Your task to perform on an android device: open device folders in google photos Image 0: 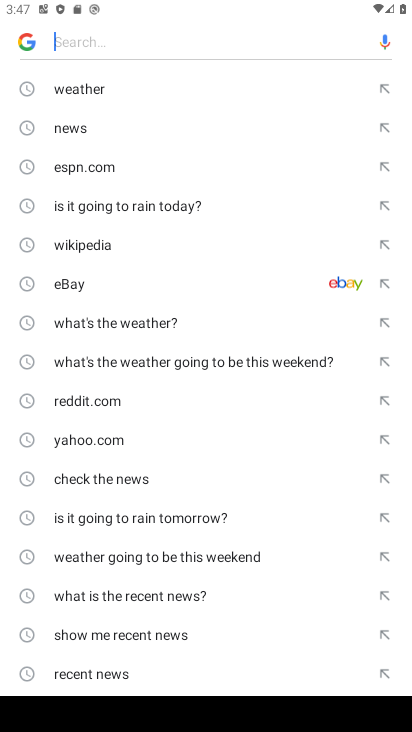
Step 0: press home button
Your task to perform on an android device: open device folders in google photos Image 1: 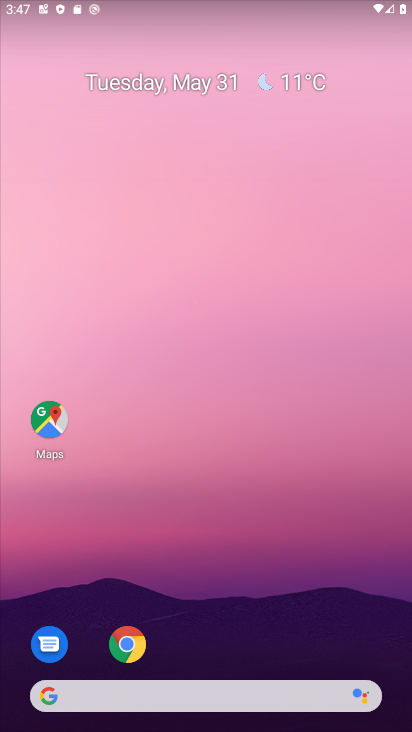
Step 1: drag from (275, 648) to (252, 146)
Your task to perform on an android device: open device folders in google photos Image 2: 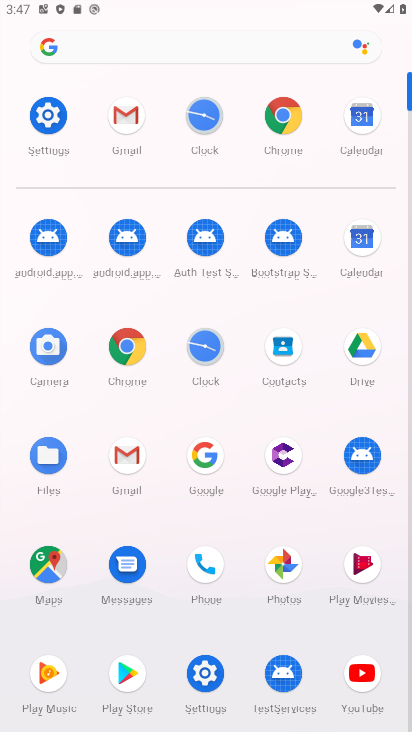
Step 2: click (288, 565)
Your task to perform on an android device: open device folders in google photos Image 3: 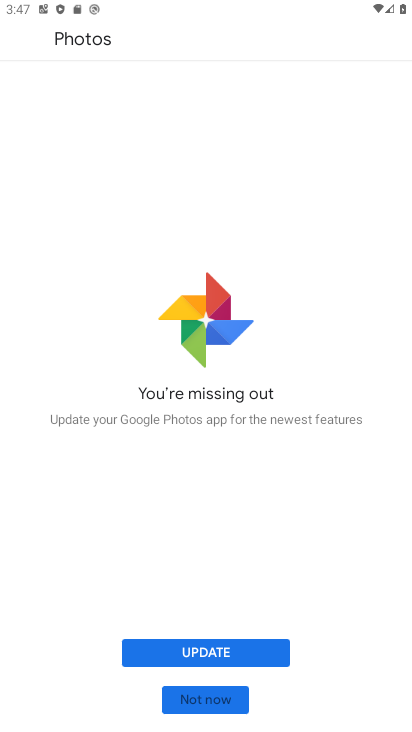
Step 3: click (245, 653)
Your task to perform on an android device: open device folders in google photos Image 4: 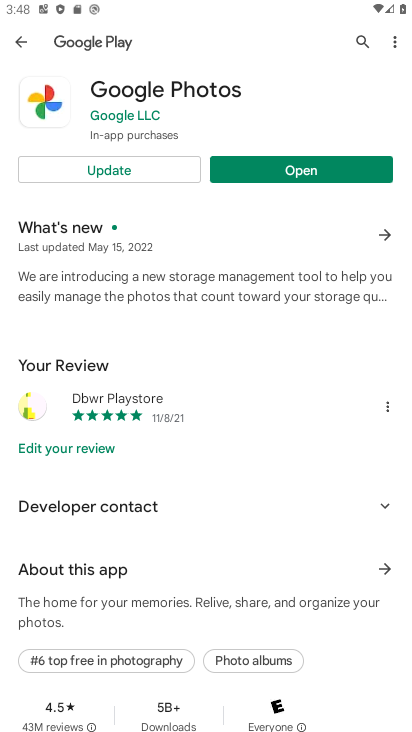
Step 4: click (152, 169)
Your task to perform on an android device: open device folders in google photos Image 5: 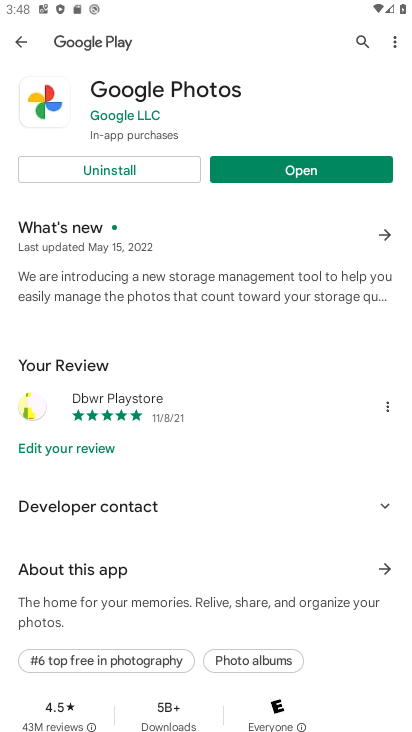
Step 5: click (305, 167)
Your task to perform on an android device: open device folders in google photos Image 6: 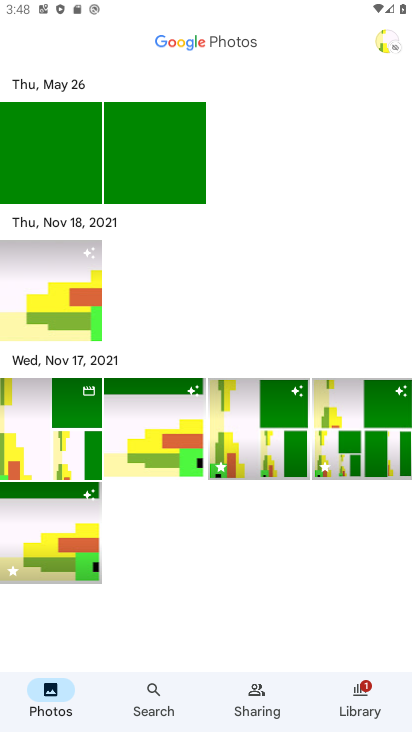
Step 6: click (387, 47)
Your task to perform on an android device: open device folders in google photos Image 7: 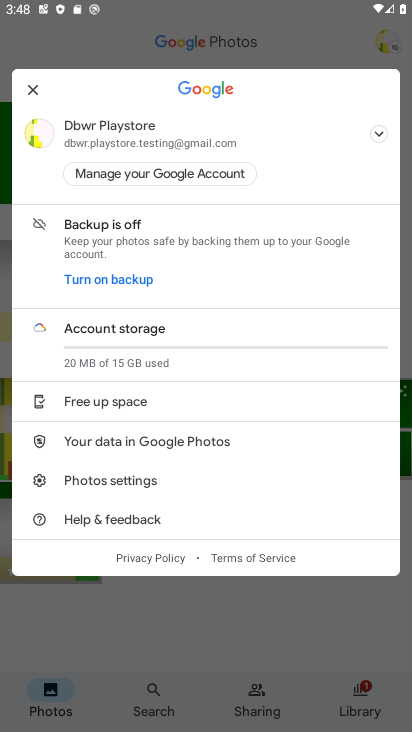
Step 7: click (379, 127)
Your task to perform on an android device: open device folders in google photos Image 8: 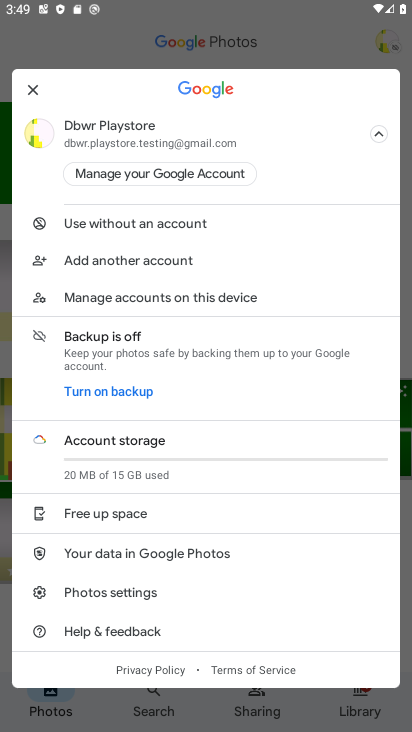
Step 8: click (167, 551)
Your task to perform on an android device: open device folders in google photos Image 9: 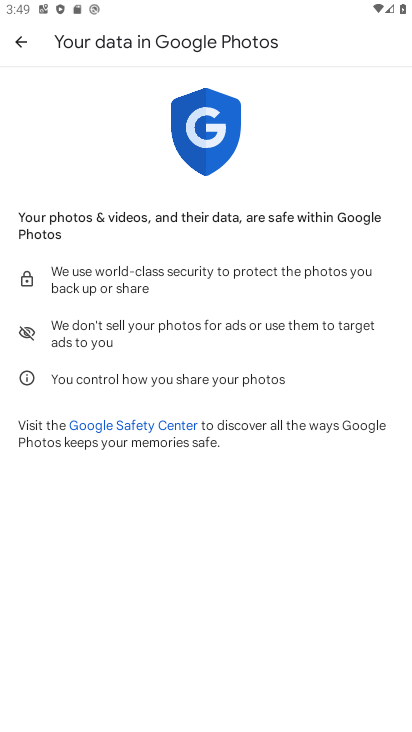
Step 9: task complete